Your task to perform on an android device: Open Maps and search for coffee Image 0: 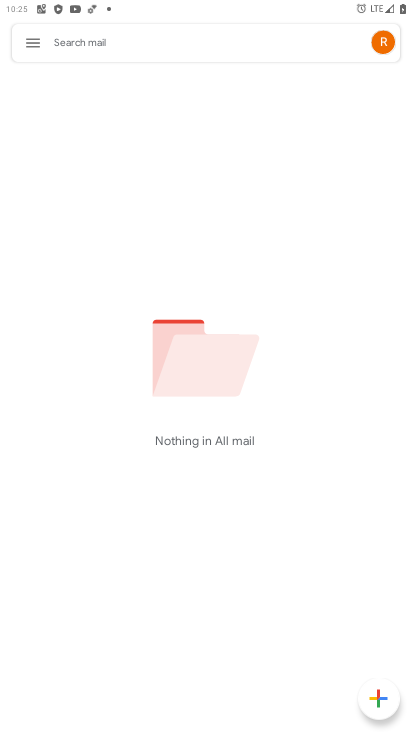
Step 0: drag from (174, 488) to (188, 420)
Your task to perform on an android device: Open Maps and search for coffee Image 1: 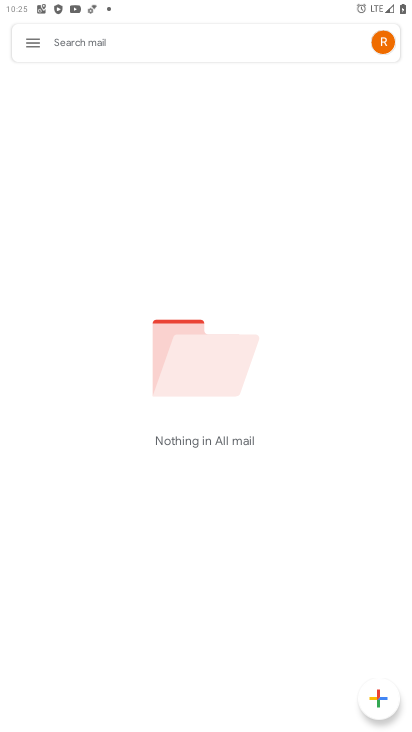
Step 1: drag from (209, 449) to (241, 382)
Your task to perform on an android device: Open Maps and search for coffee Image 2: 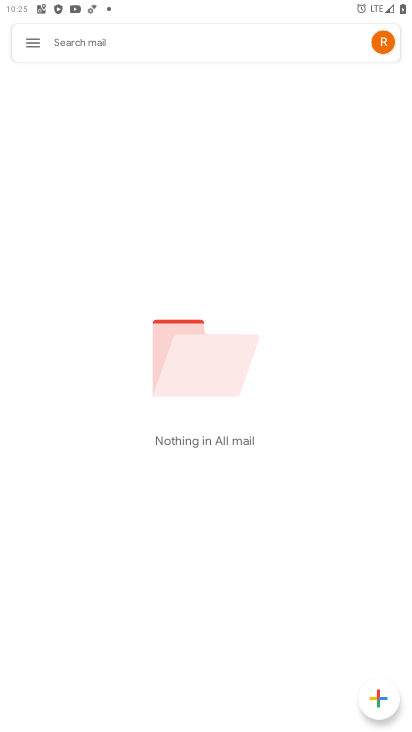
Step 2: press home button
Your task to perform on an android device: Open Maps and search for coffee Image 3: 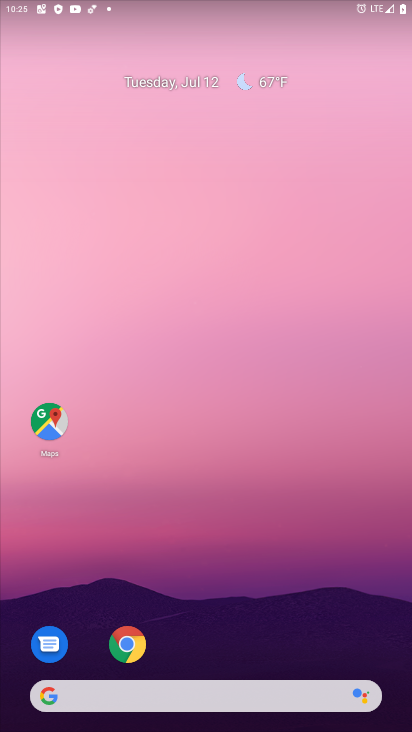
Step 3: drag from (182, 653) to (271, 98)
Your task to perform on an android device: Open Maps and search for coffee Image 4: 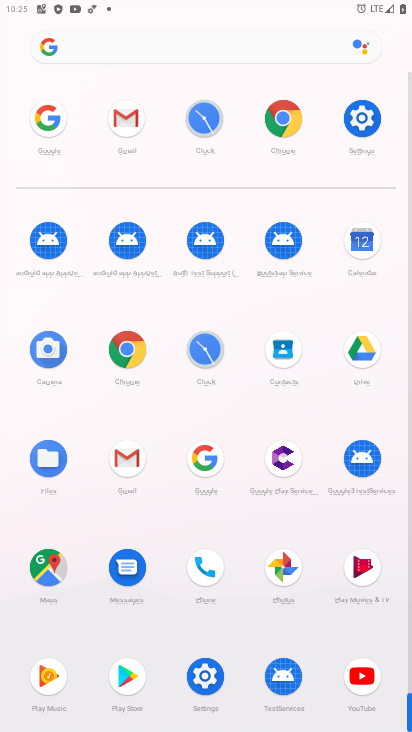
Step 4: click (44, 574)
Your task to perform on an android device: Open Maps and search for coffee Image 5: 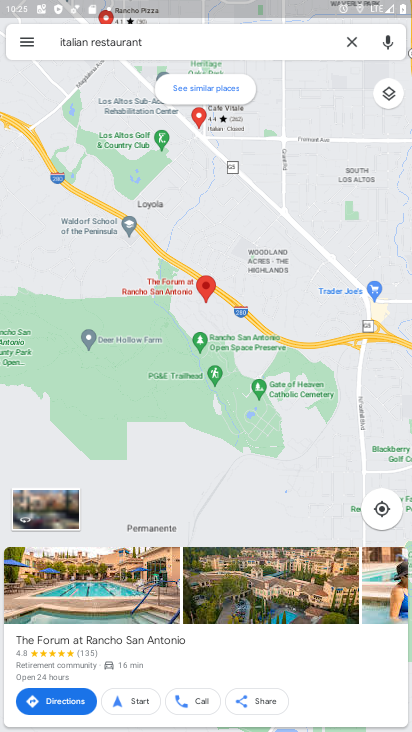
Step 5: drag from (209, 447) to (263, 238)
Your task to perform on an android device: Open Maps and search for coffee Image 6: 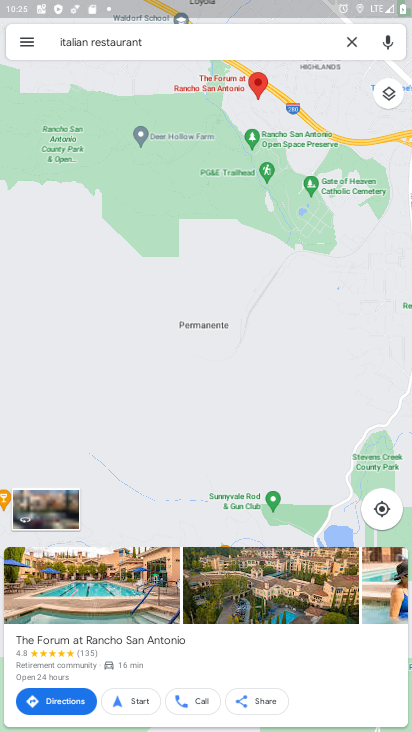
Step 6: click (357, 40)
Your task to perform on an android device: Open Maps and search for coffee Image 7: 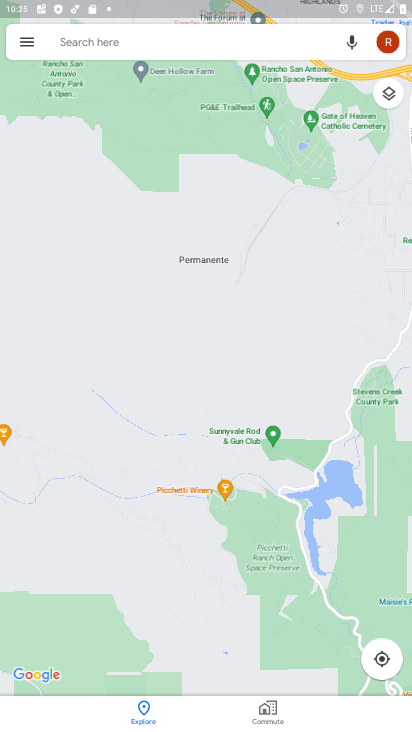
Step 7: click (207, 38)
Your task to perform on an android device: Open Maps and search for coffee Image 8: 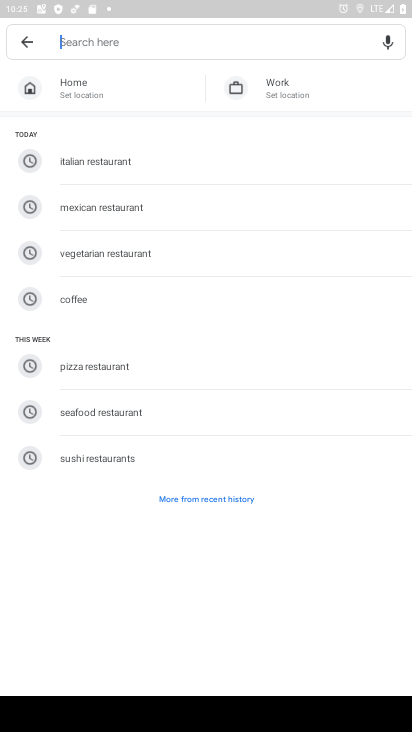
Step 8: click (94, 287)
Your task to perform on an android device: Open Maps and search for coffee Image 9: 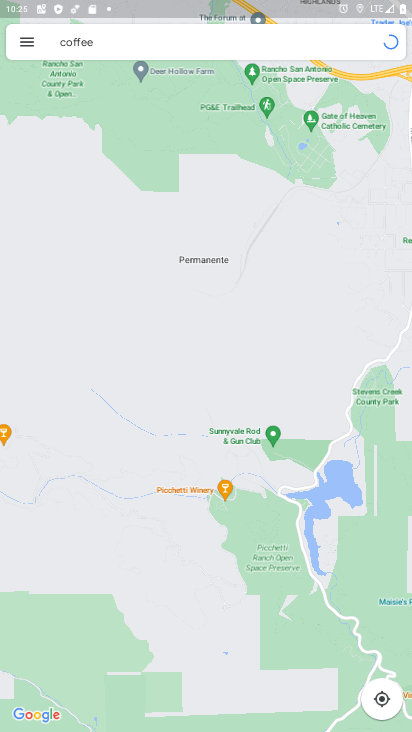
Step 9: task complete